Your task to perform on an android device: Go to Maps Image 0: 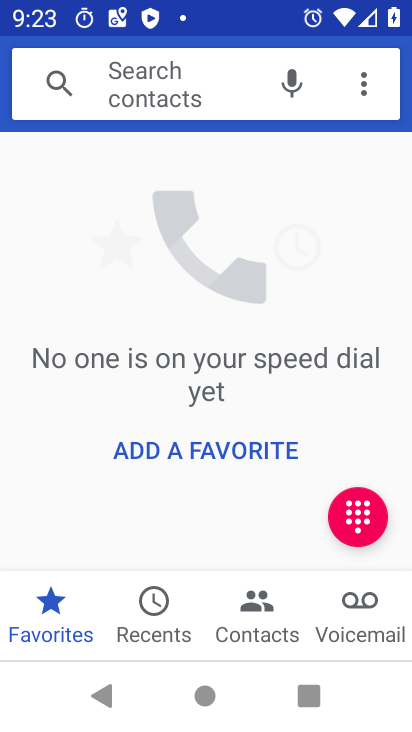
Step 0: press home button
Your task to perform on an android device: Go to Maps Image 1: 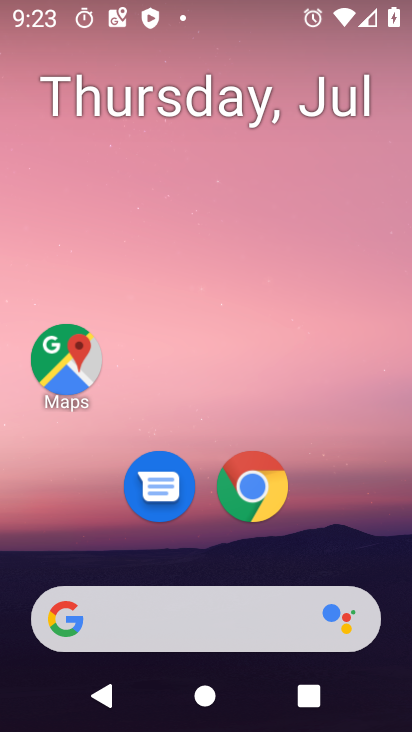
Step 1: click (66, 352)
Your task to perform on an android device: Go to Maps Image 2: 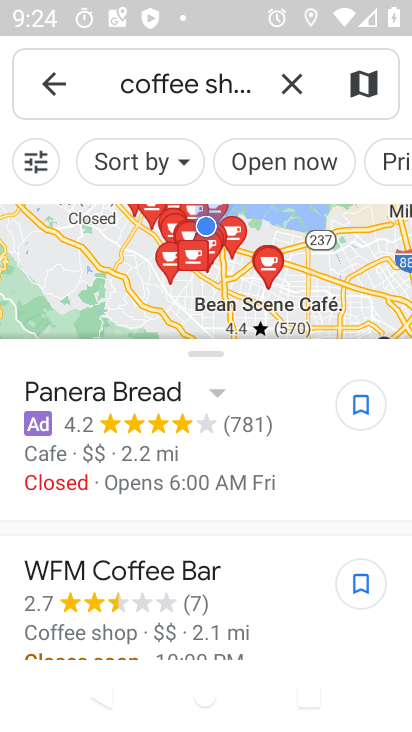
Step 2: task complete